Your task to perform on an android device: Open Google Chrome Image 0: 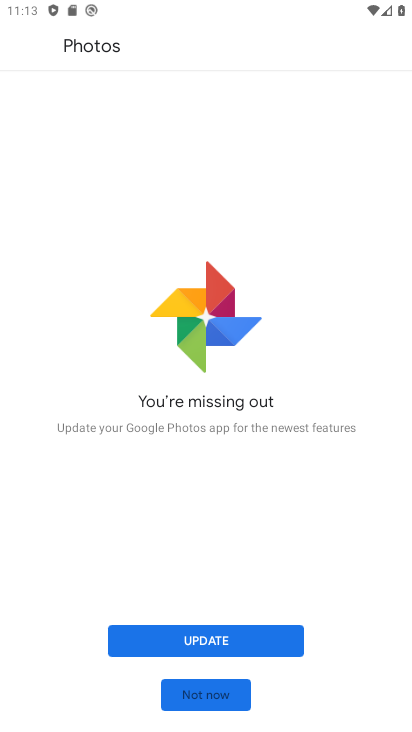
Step 0: press home button
Your task to perform on an android device: Open Google Chrome Image 1: 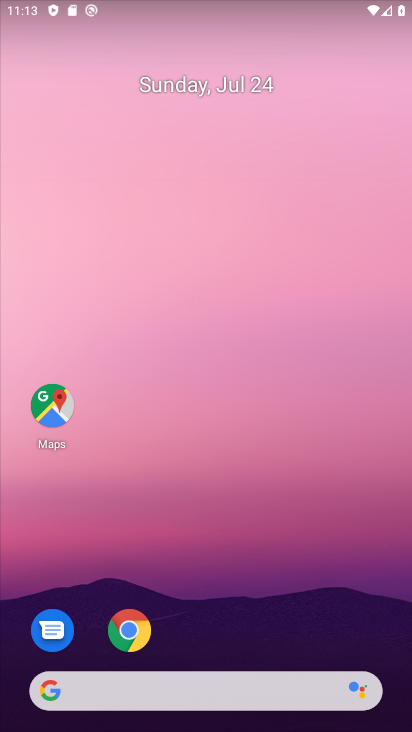
Step 1: click (127, 635)
Your task to perform on an android device: Open Google Chrome Image 2: 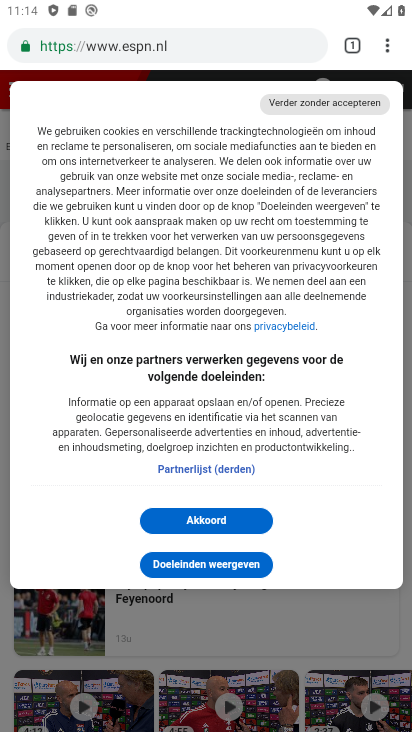
Step 2: task complete